Your task to perform on an android device: Turn on the flashlight Image 0: 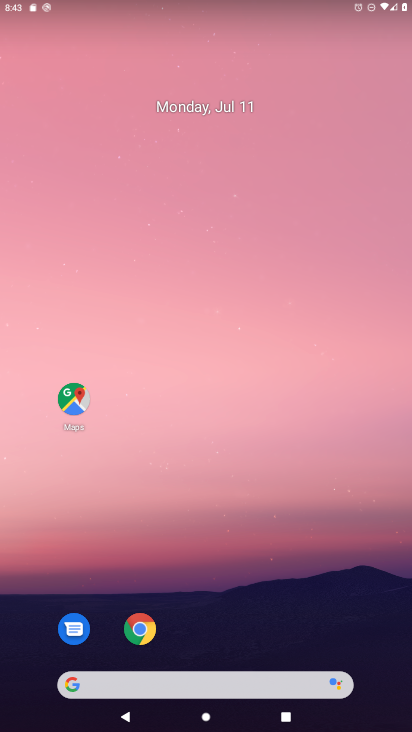
Step 0: drag from (219, 623) to (258, 164)
Your task to perform on an android device: Turn on the flashlight Image 1: 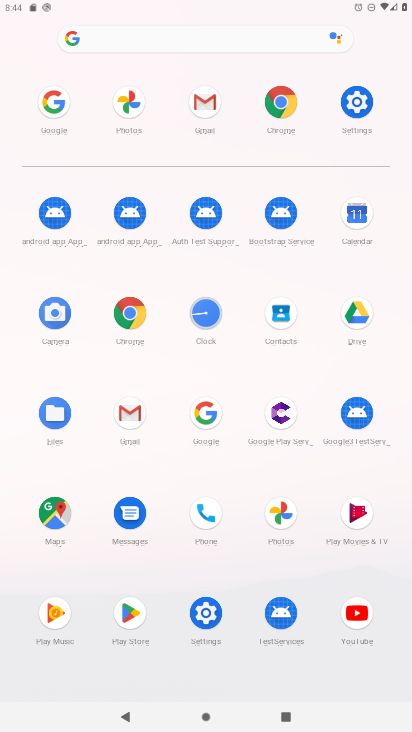
Step 1: click (360, 105)
Your task to perform on an android device: Turn on the flashlight Image 2: 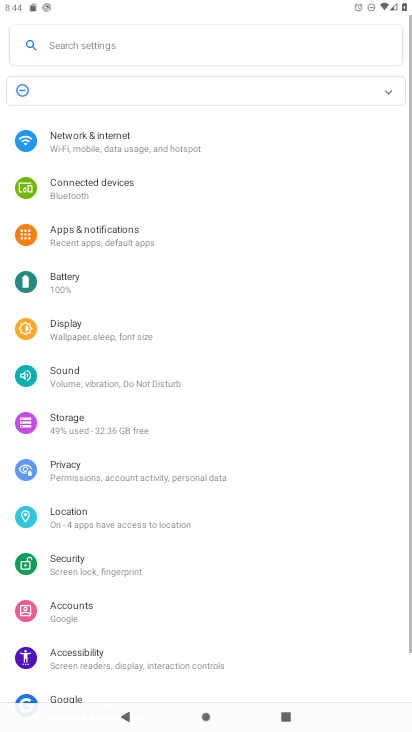
Step 2: click (178, 47)
Your task to perform on an android device: Turn on the flashlight Image 3: 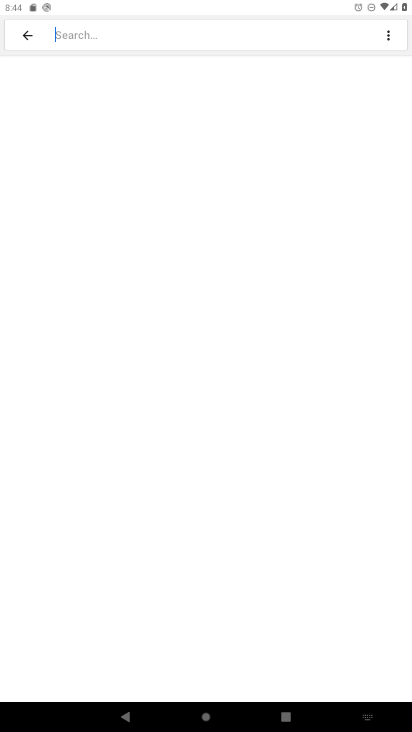
Step 3: type "flash"
Your task to perform on an android device: Turn on the flashlight Image 4: 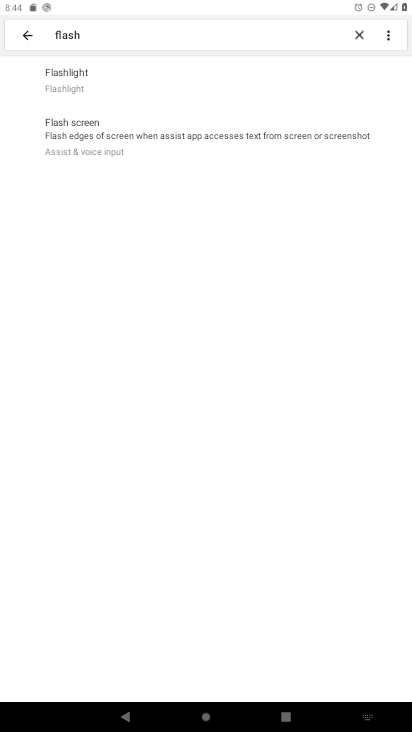
Step 4: task complete